Your task to perform on an android device: turn pop-ups off in chrome Image 0: 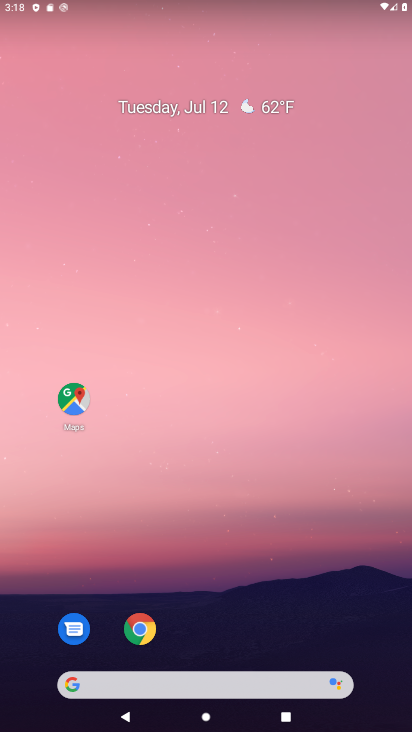
Step 0: click (142, 637)
Your task to perform on an android device: turn pop-ups off in chrome Image 1: 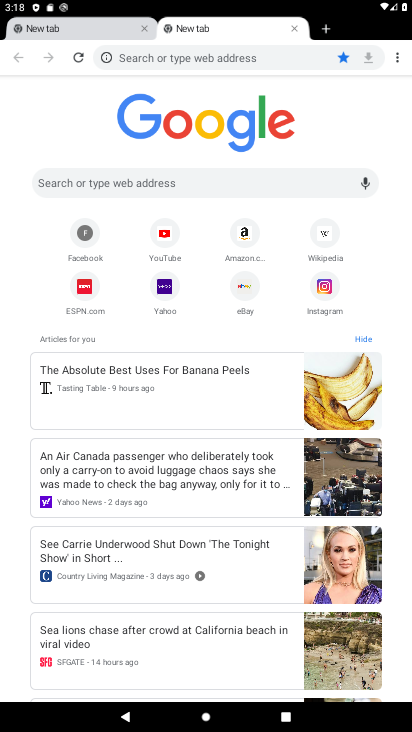
Step 1: drag from (397, 61) to (285, 255)
Your task to perform on an android device: turn pop-ups off in chrome Image 2: 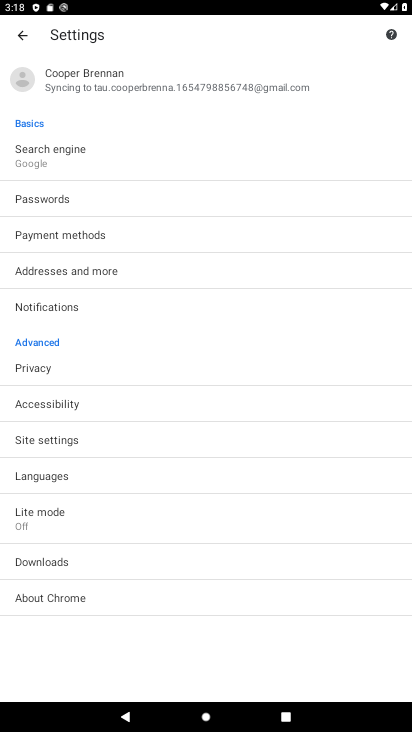
Step 2: click (71, 438)
Your task to perform on an android device: turn pop-ups off in chrome Image 3: 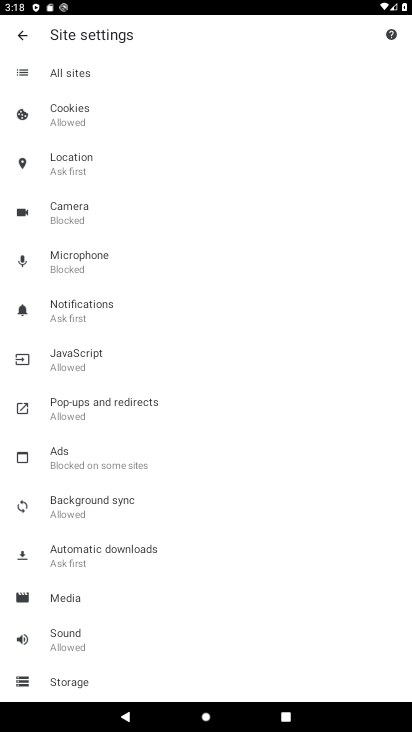
Step 3: click (68, 415)
Your task to perform on an android device: turn pop-ups off in chrome Image 4: 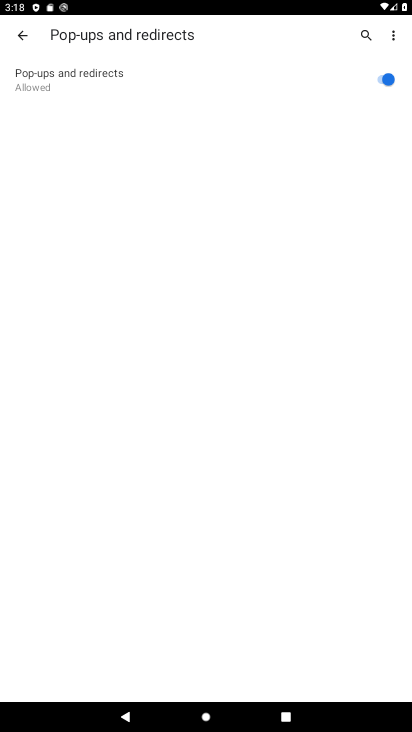
Step 4: click (385, 87)
Your task to perform on an android device: turn pop-ups off in chrome Image 5: 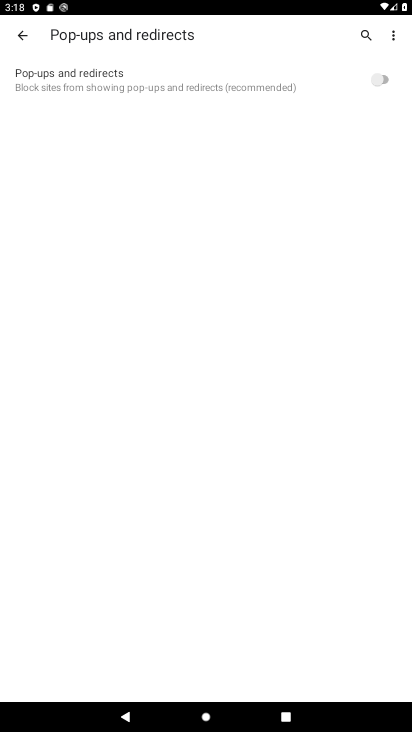
Step 5: task complete